Your task to perform on an android device: toggle wifi Image 0: 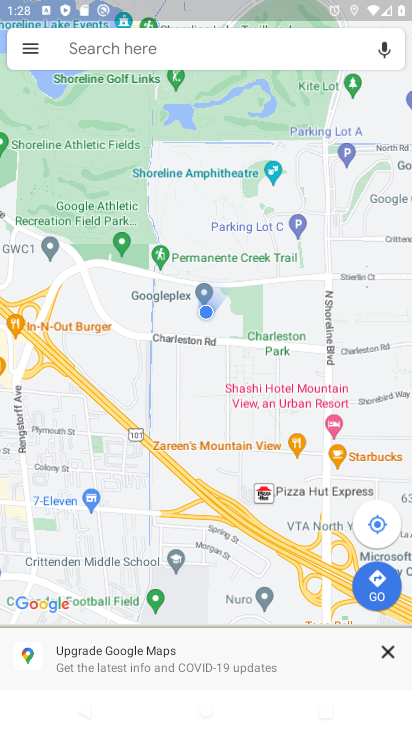
Step 0: press home button
Your task to perform on an android device: toggle wifi Image 1: 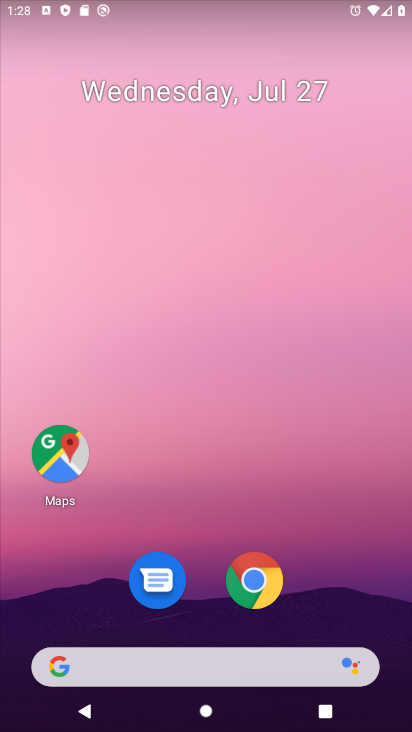
Step 1: drag from (275, 664) to (334, 133)
Your task to perform on an android device: toggle wifi Image 2: 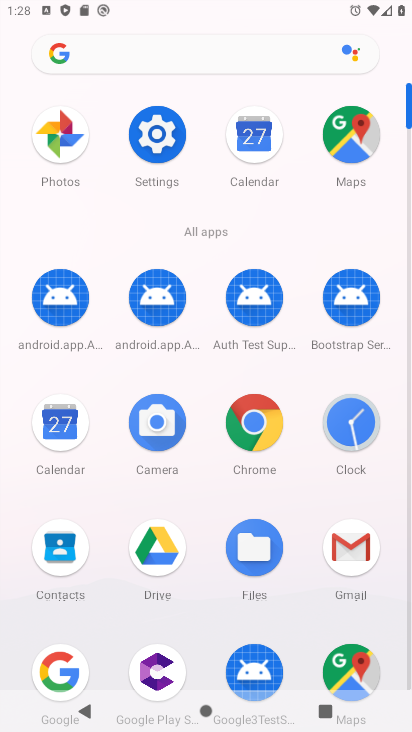
Step 2: click (165, 163)
Your task to perform on an android device: toggle wifi Image 3: 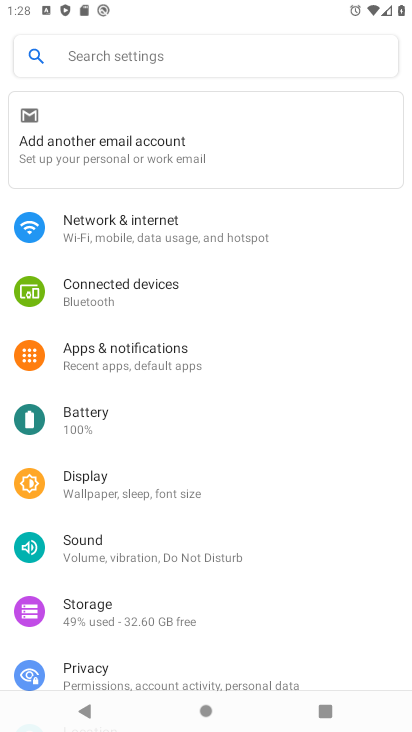
Step 3: drag from (115, 147) to (94, 327)
Your task to perform on an android device: toggle wifi Image 4: 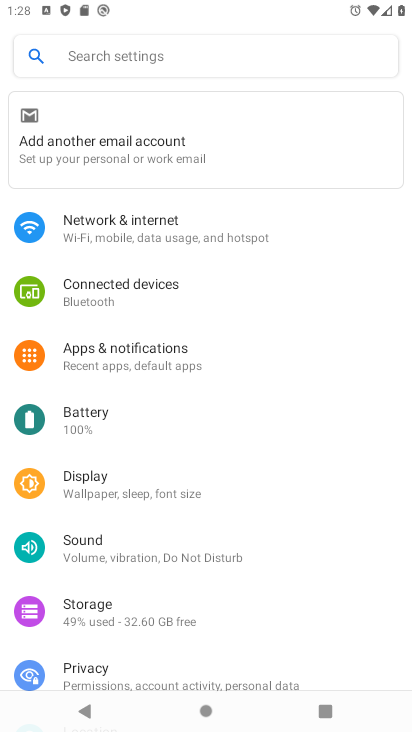
Step 4: click (168, 241)
Your task to perform on an android device: toggle wifi Image 5: 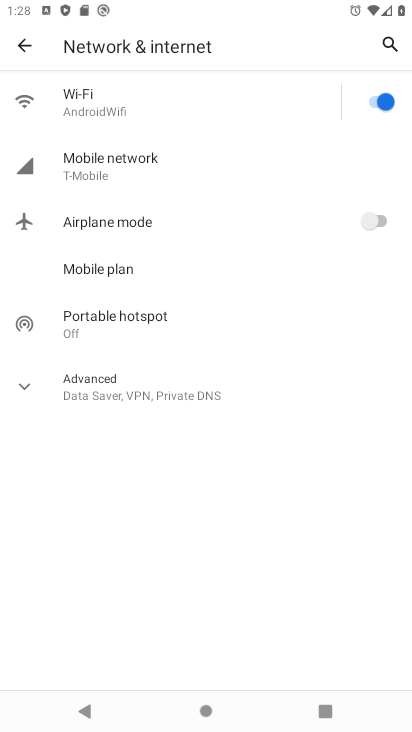
Step 5: click (96, 104)
Your task to perform on an android device: toggle wifi Image 6: 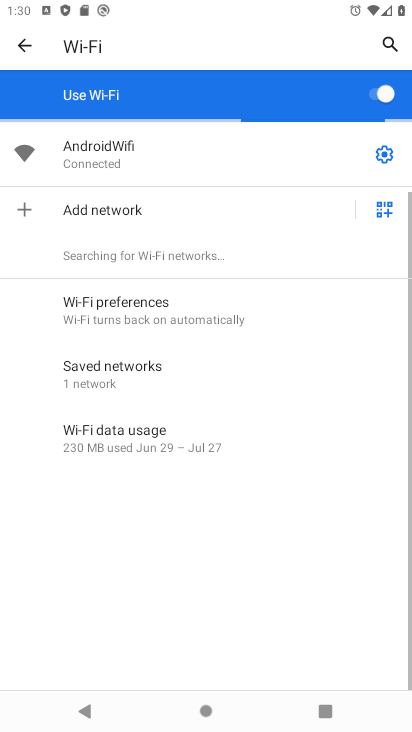
Step 6: task complete